Your task to perform on an android device: Open calendar and show me the first week of next month Image 0: 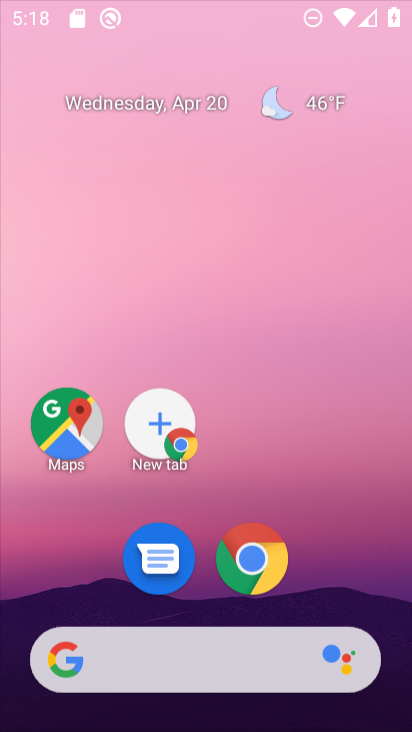
Step 0: drag from (332, 593) to (308, 193)
Your task to perform on an android device: Open calendar and show me the first week of next month Image 1: 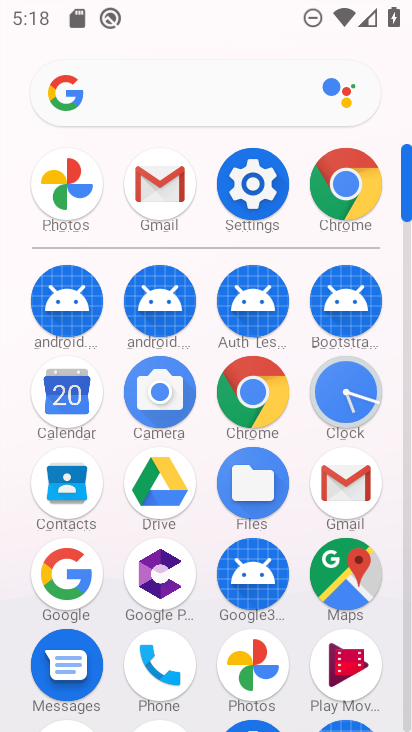
Step 1: click (78, 397)
Your task to perform on an android device: Open calendar and show me the first week of next month Image 2: 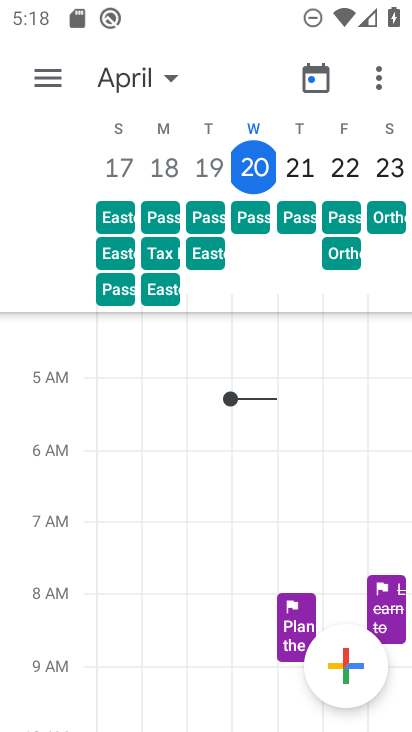
Step 2: click (165, 81)
Your task to perform on an android device: Open calendar and show me the first week of next month Image 3: 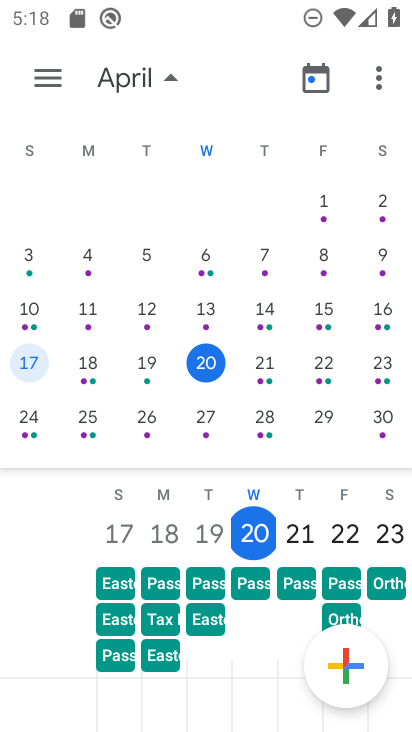
Step 3: drag from (345, 299) to (0, 350)
Your task to perform on an android device: Open calendar and show me the first week of next month Image 4: 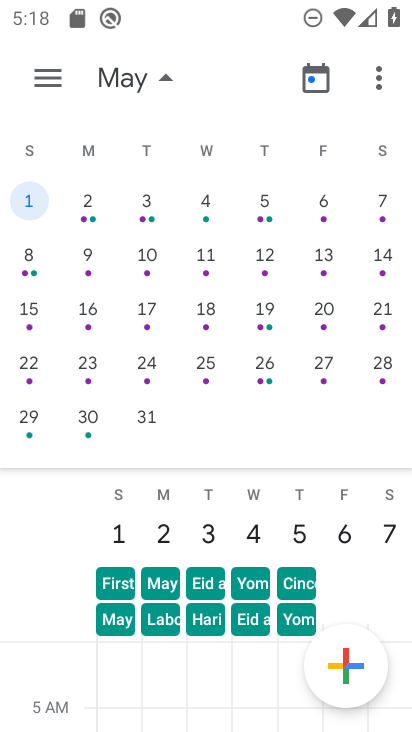
Step 4: click (44, 89)
Your task to perform on an android device: Open calendar and show me the first week of next month Image 5: 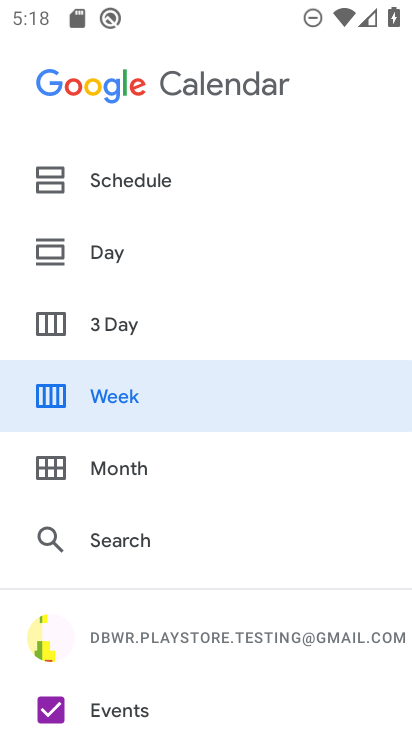
Step 5: click (100, 388)
Your task to perform on an android device: Open calendar and show me the first week of next month Image 6: 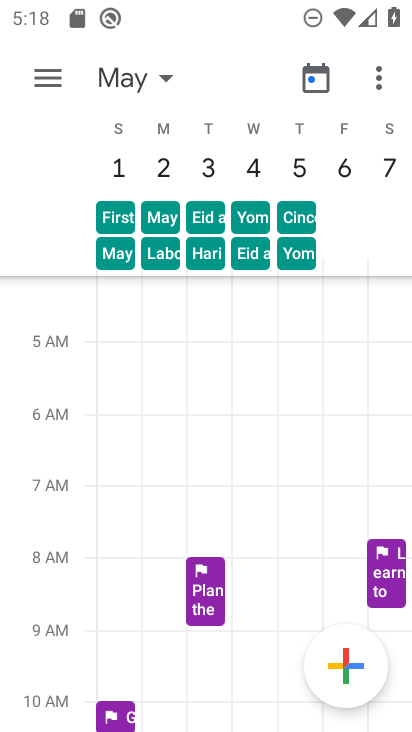
Step 6: task complete